Your task to perform on an android device: turn off notifications settings in the gmail app Image 0: 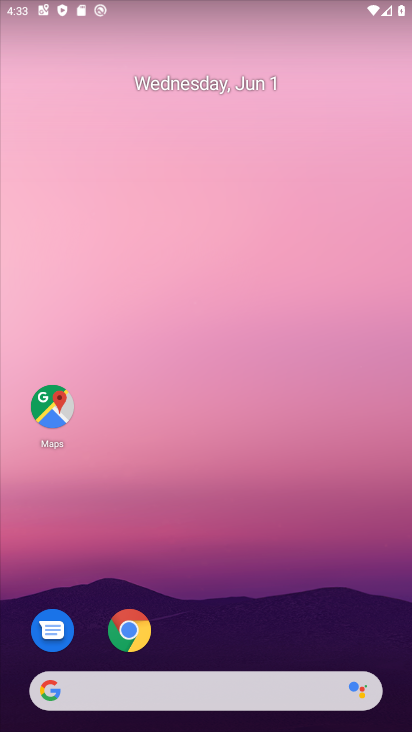
Step 0: drag from (255, 669) to (260, 87)
Your task to perform on an android device: turn off notifications settings in the gmail app Image 1: 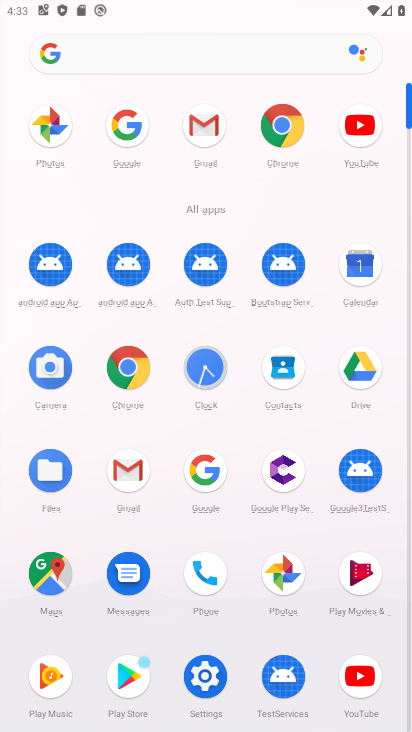
Step 1: click (129, 462)
Your task to perform on an android device: turn off notifications settings in the gmail app Image 2: 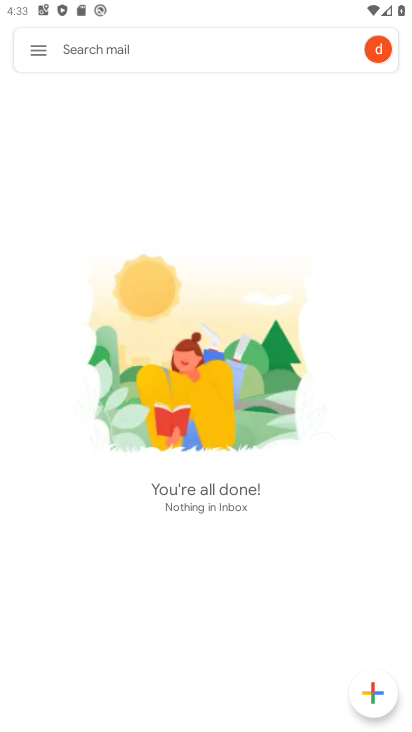
Step 2: click (35, 56)
Your task to perform on an android device: turn off notifications settings in the gmail app Image 3: 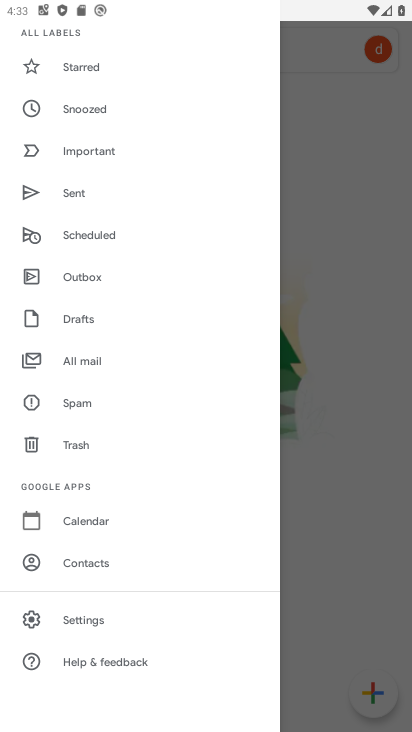
Step 3: click (94, 614)
Your task to perform on an android device: turn off notifications settings in the gmail app Image 4: 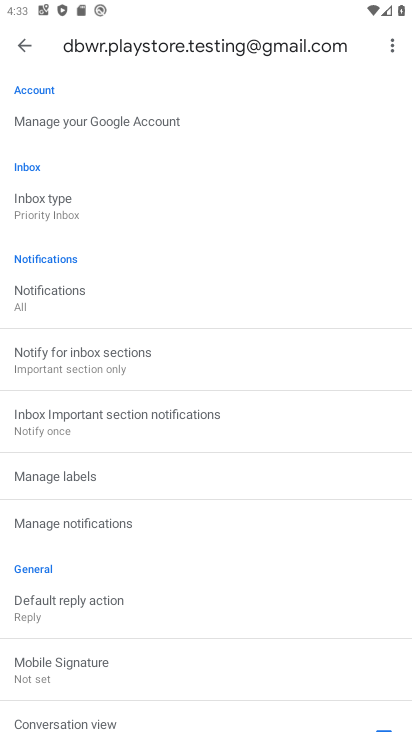
Step 4: click (58, 526)
Your task to perform on an android device: turn off notifications settings in the gmail app Image 5: 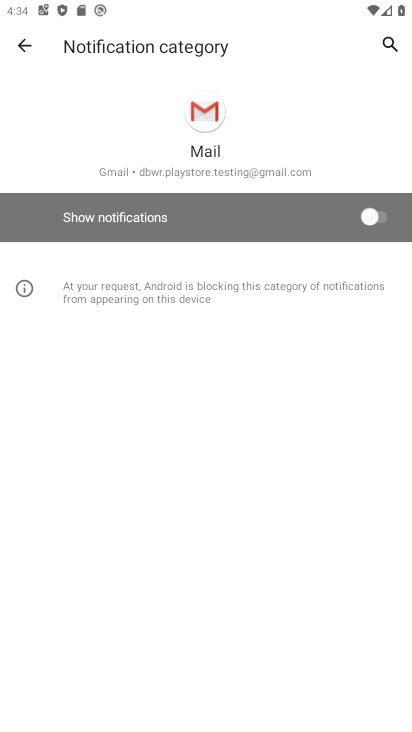
Step 5: task complete